Your task to perform on an android device: Open battery settings Image 0: 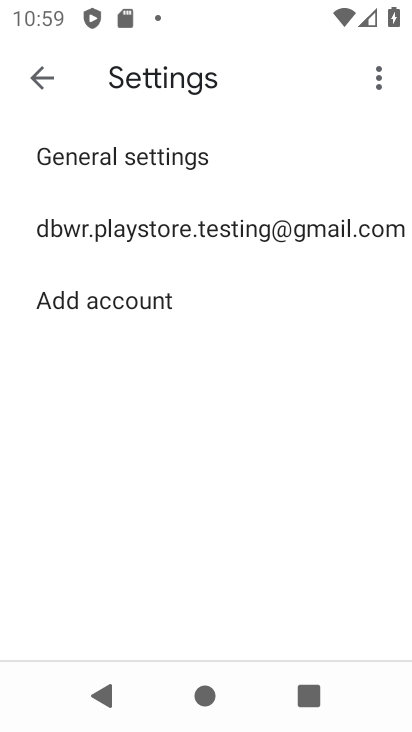
Step 0: press home button
Your task to perform on an android device: Open battery settings Image 1: 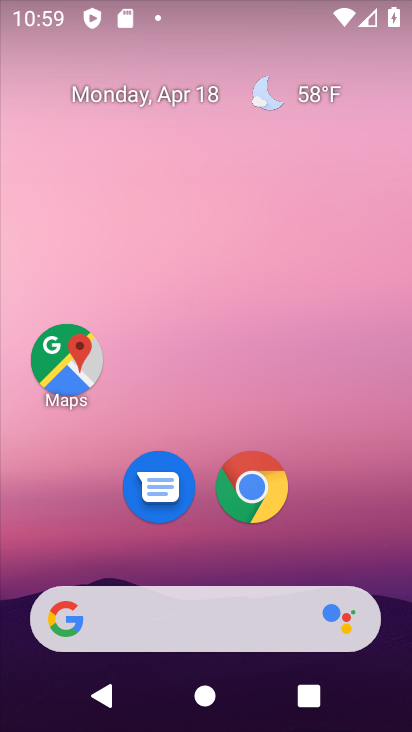
Step 1: drag from (351, 532) to (273, 82)
Your task to perform on an android device: Open battery settings Image 2: 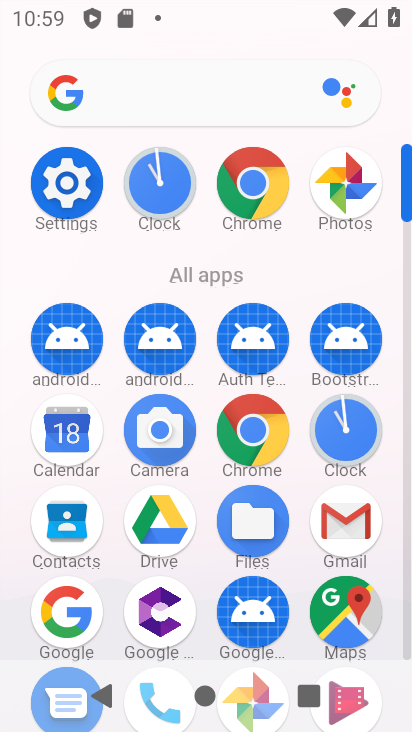
Step 2: click (83, 172)
Your task to perform on an android device: Open battery settings Image 3: 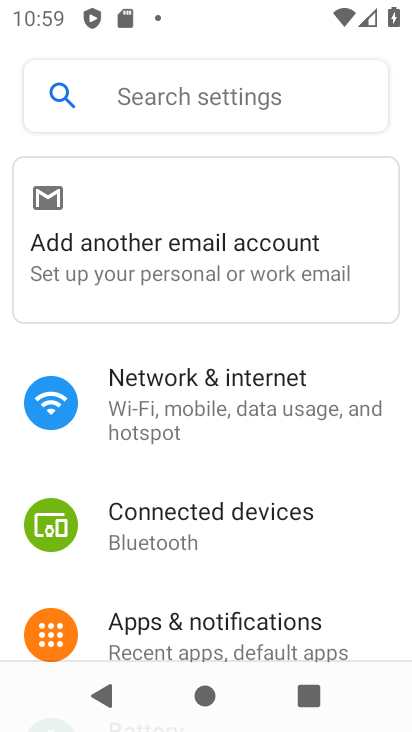
Step 3: drag from (243, 503) to (244, 221)
Your task to perform on an android device: Open battery settings Image 4: 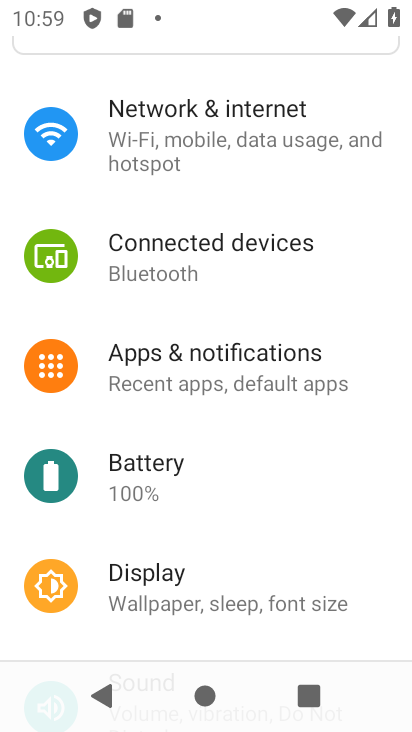
Step 4: click (191, 463)
Your task to perform on an android device: Open battery settings Image 5: 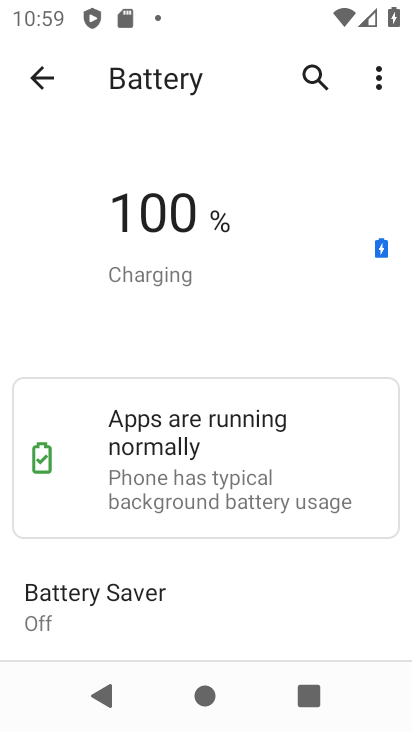
Step 5: task complete